Your task to perform on an android device: change timer sound Image 0: 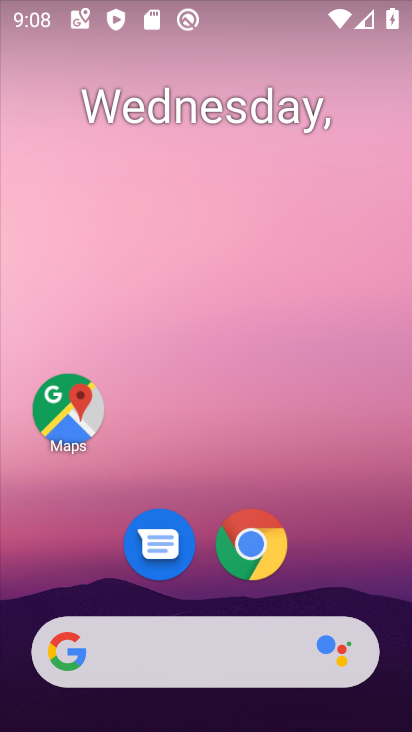
Step 0: drag from (216, 606) to (222, 143)
Your task to perform on an android device: change timer sound Image 1: 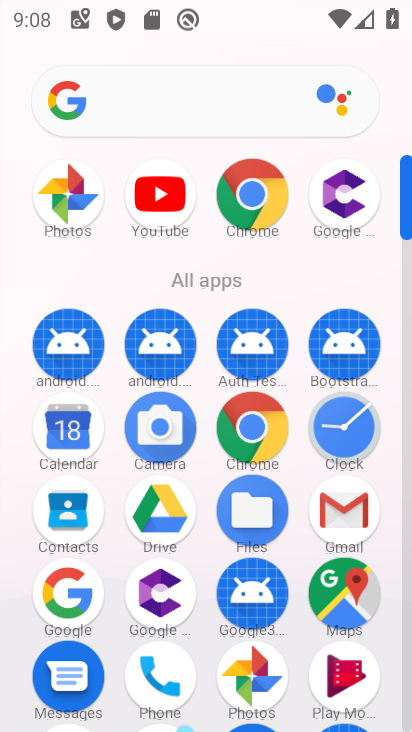
Step 1: click (333, 417)
Your task to perform on an android device: change timer sound Image 2: 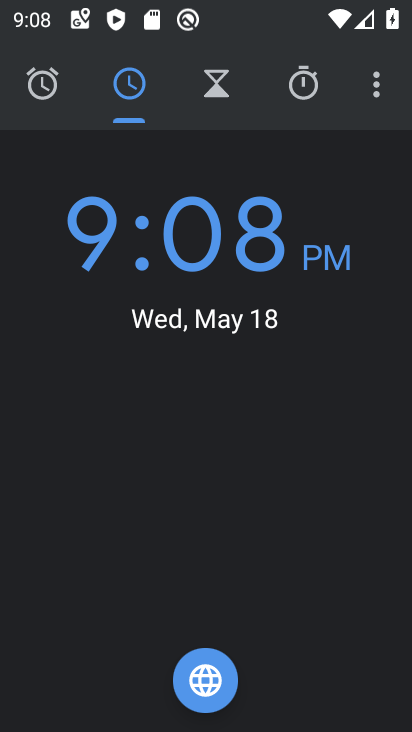
Step 2: click (384, 89)
Your task to perform on an android device: change timer sound Image 3: 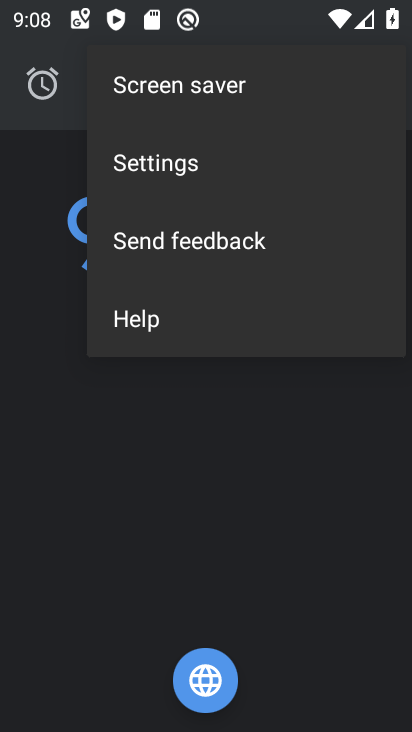
Step 3: click (227, 151)
Your task to perform on an android device: change timer sound Image 4: 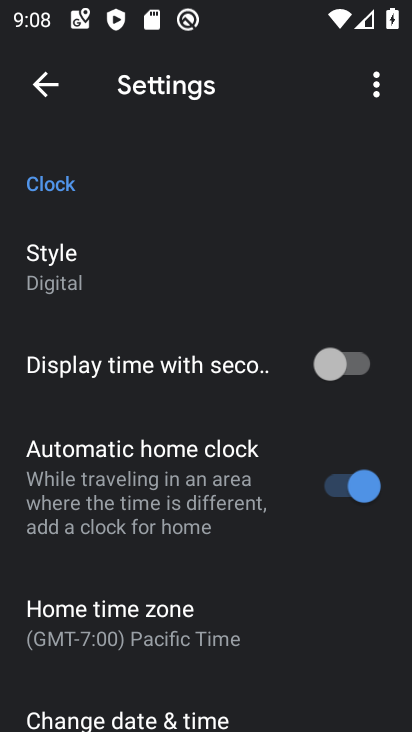
Step 4: drag from (93, 696) to (168, 260)
Your task to perform on an android device: change timer sound Image 5: 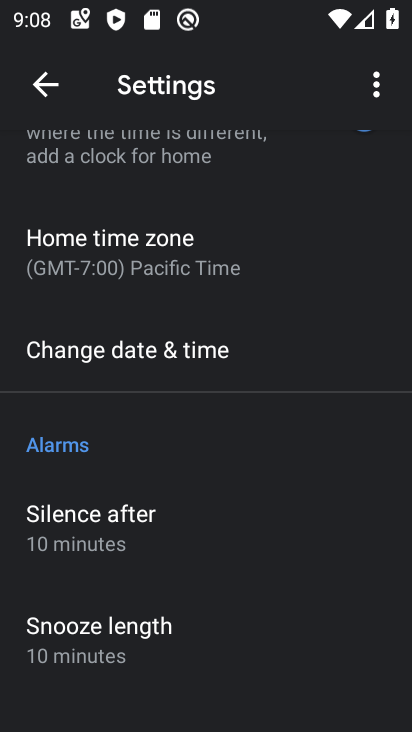
Step 5: drag from (101, 566) to (175, 149)
Your task to perform on an android device: change timer sound Image 6: 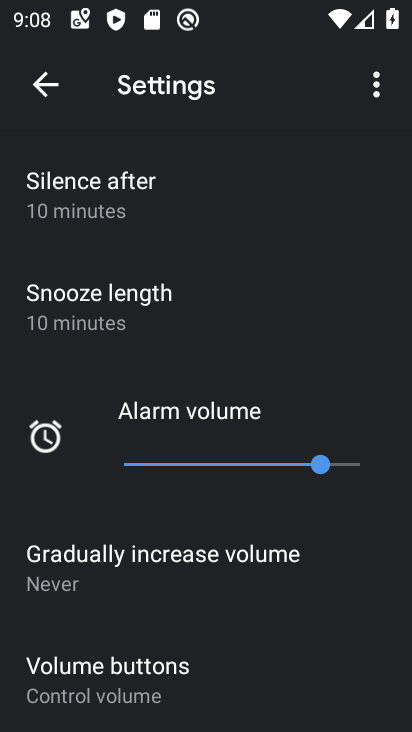
Step 6: drag from (70, 560) to (143, 197)
Your task to perform on an android device: change timer sound Image 7: 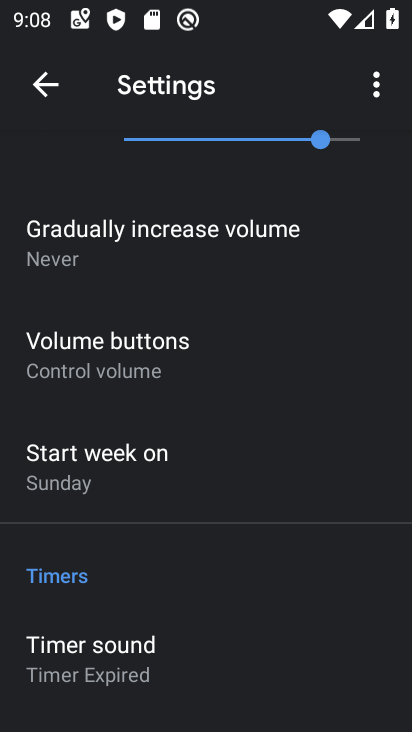
Step 7: click (98, 665)
Your task to perform on an android device: change timer sound Image 8: 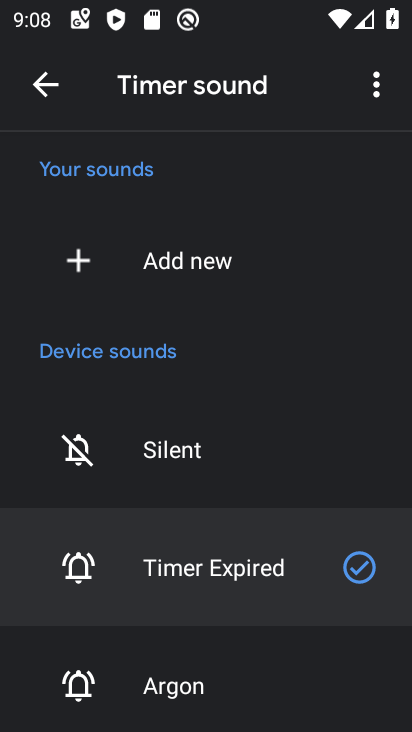
Step 8: click (177, 697)
Your task to perform on an android device: change timer sound Image 9: 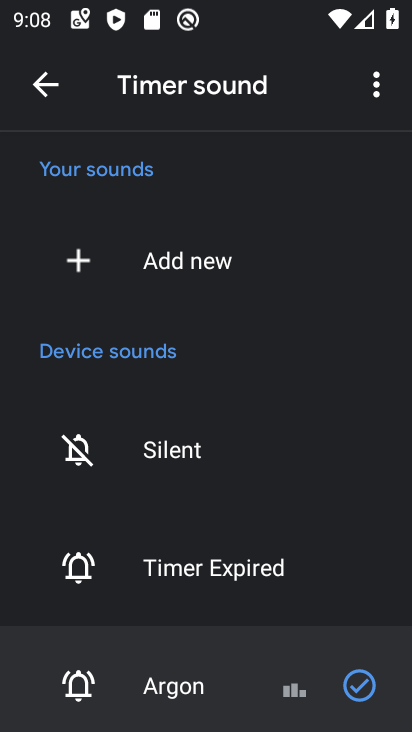
Step 9: task complete